Your task to perform on an android device: toggle javascript in the chrome app Image 0: 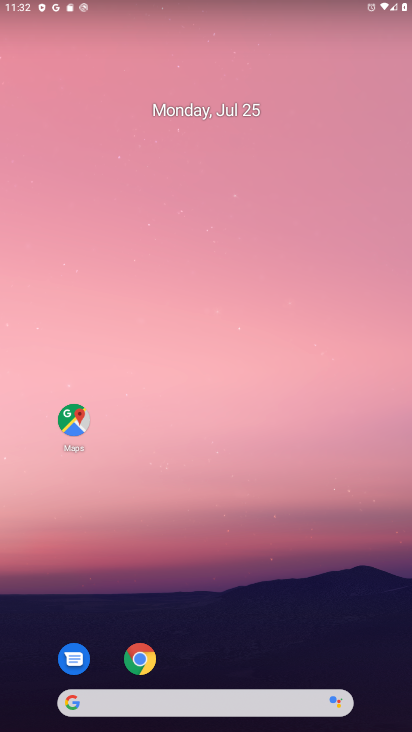
Step 0: click (136, 657)
Your task to perform on an android device: toggle javascript in the chrome app Image 1: 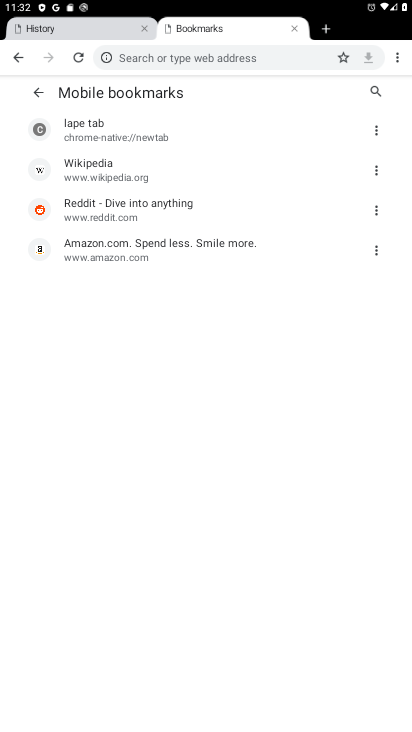
Step 1: click (396, 56)
Your task to perform on an android device: toggle javascript in the chrome app Image 2: 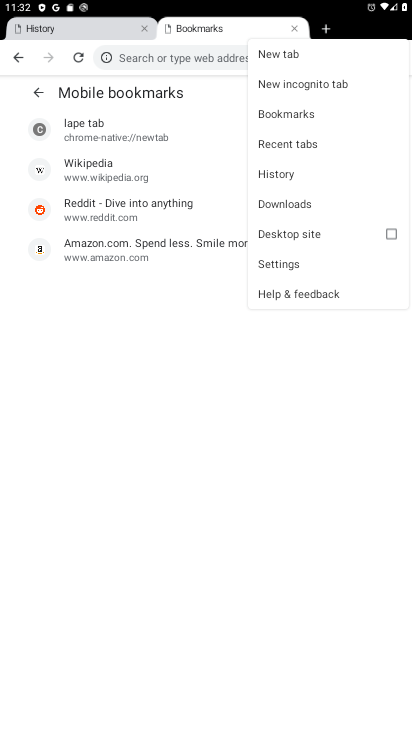
Step 2: click (287, 264)
Your task to perform on an android device: toggle javascript in the chrome app Image 3: 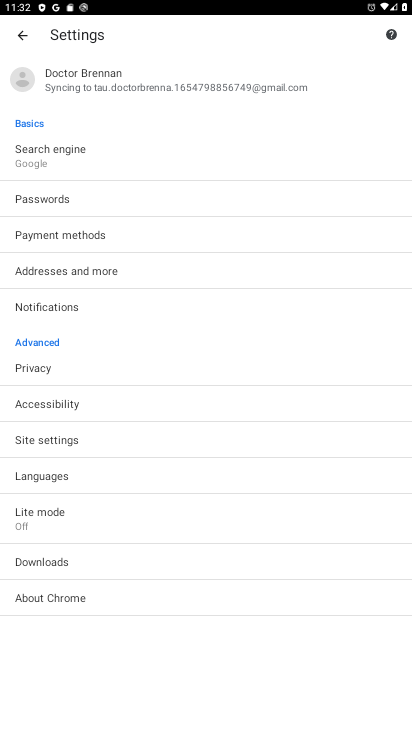
Step 3: click (34, 434)
Your task to perform on an android device: toggle javascript in the chrome app Image 4: 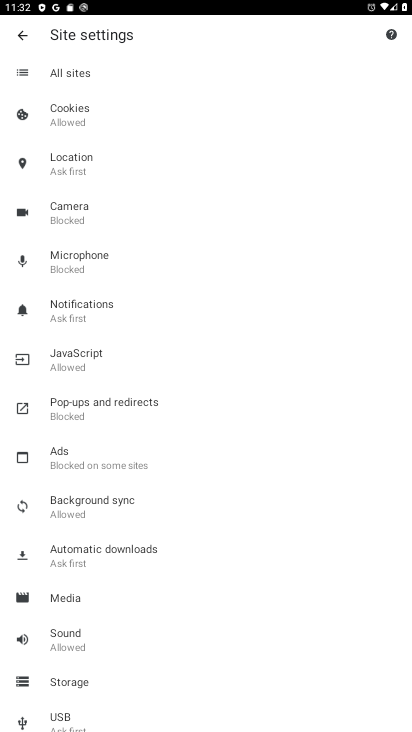
Step 4: click (79, 360)
Your task to perform on an android device: toggle javascript in the chrome app Image 5: 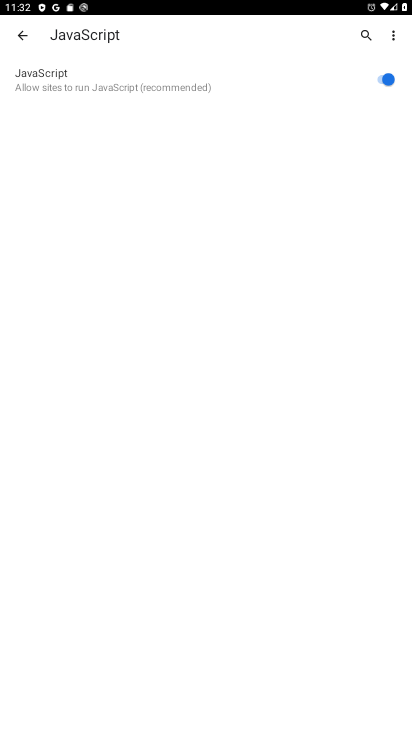
Step 5: click (384, 72)
Your task to perform on an android device: toggle javascript in the chrome app Image 6: 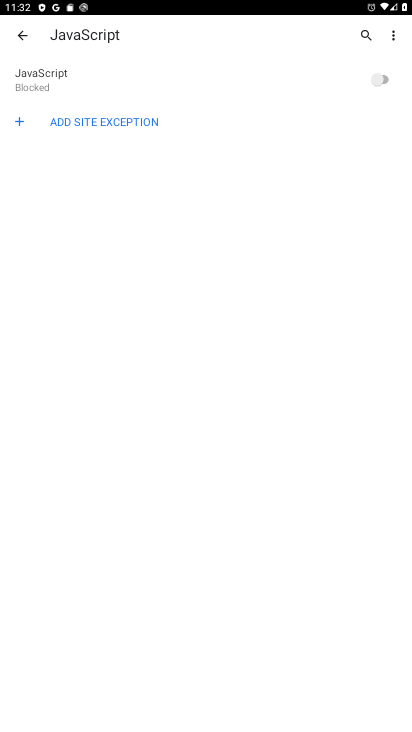
Step 6: task complete